Your task to perform on an android device: What's on the menu at Subway? Image 0: 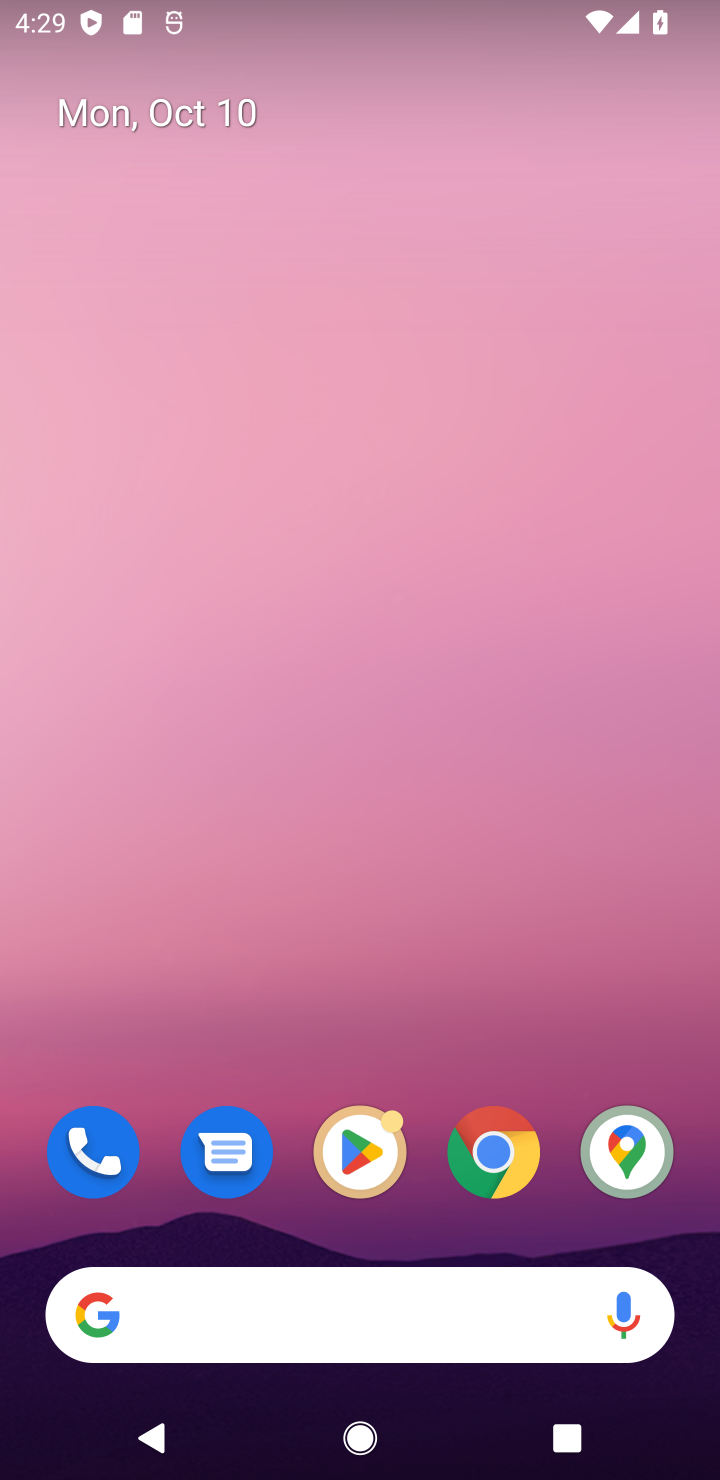
Step 0: click (492, 1157)
Your task to perform on an android device: What's on the menu at Subway? Image 1: 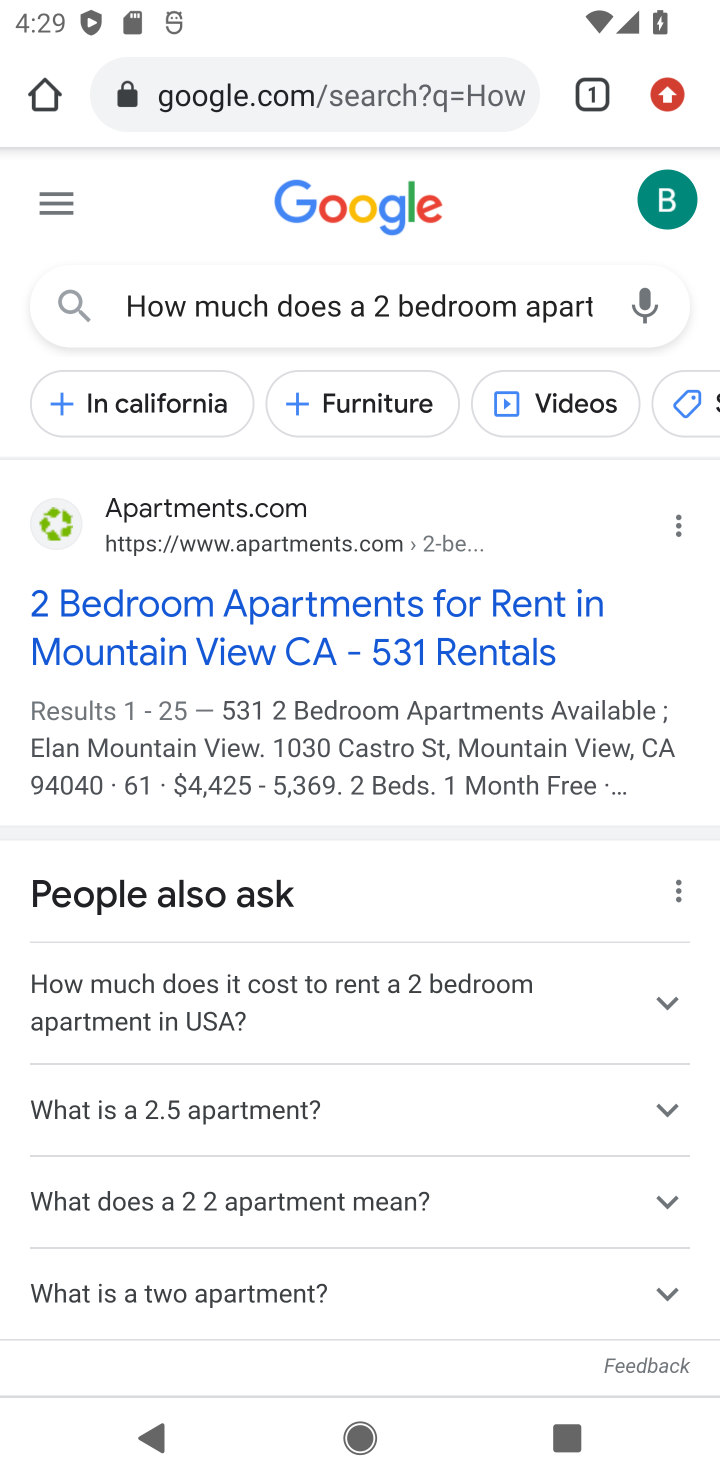
Step 1: click (454, 88)
Your task to perform on an android device: What's on the menu at Subway? Image 2: 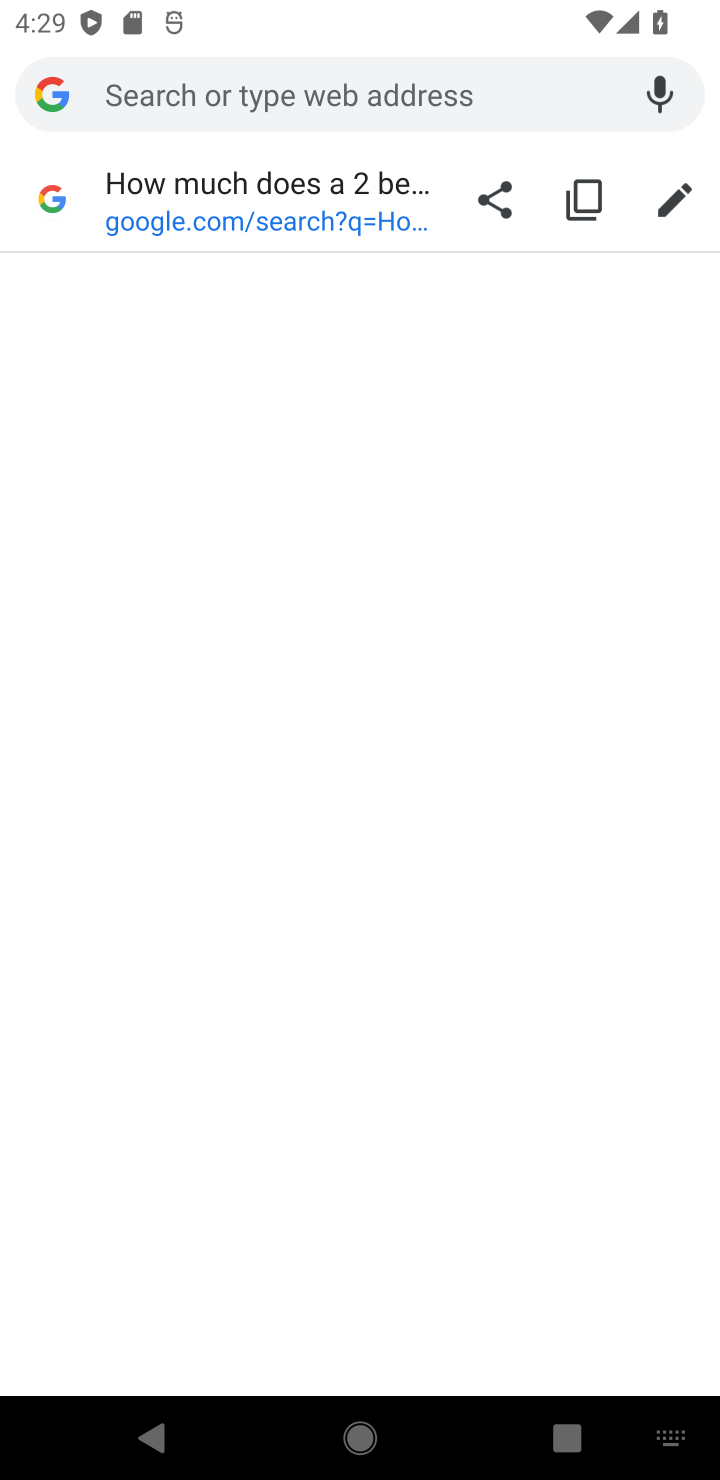
Step 2: type "What's on menu at Subway"
Your task to perform on an android device: What's on the menu at Subway? Image 3: 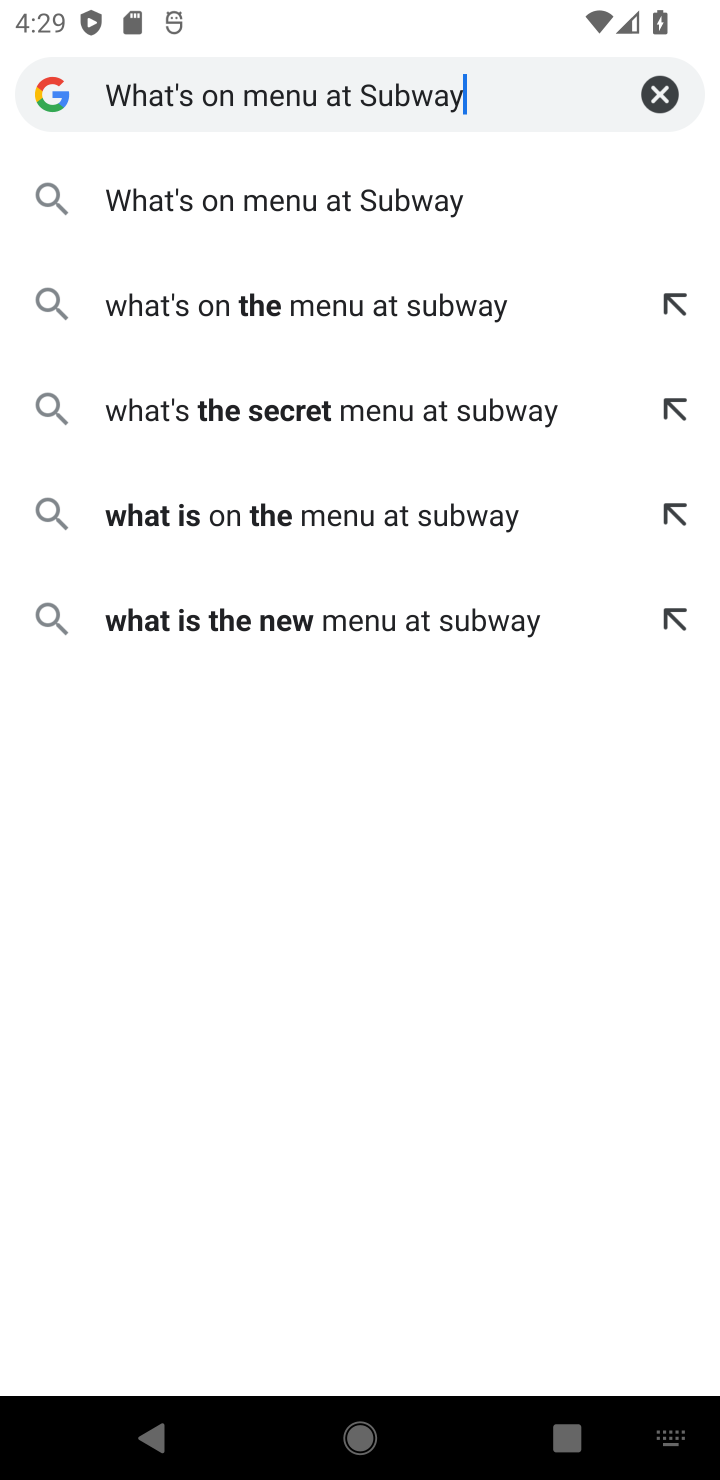
Step 3: click (325, 189)
Your task to perform on an android device: What's on the menu at Subway? Image 4: 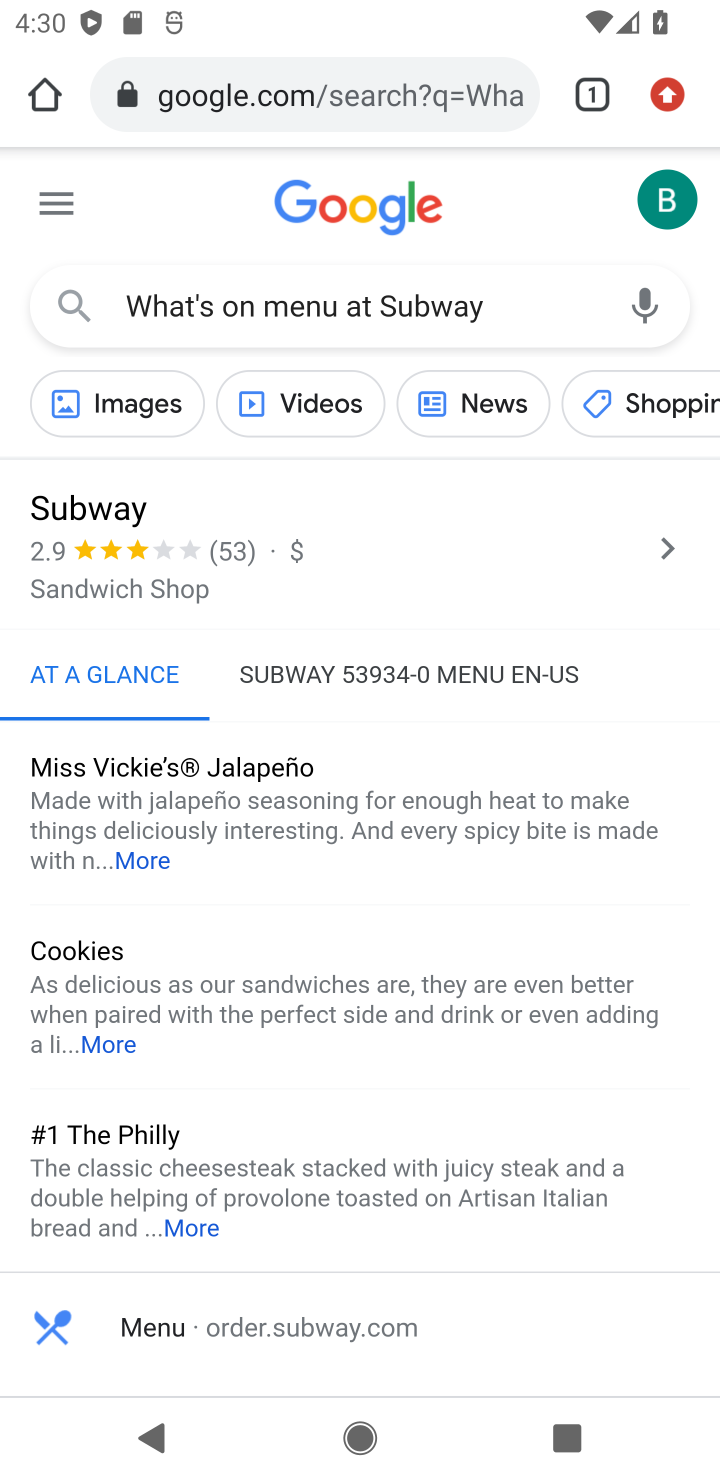
Step 4: task complete